Your task to perform on an android device: Go to wifi settings Image 0: 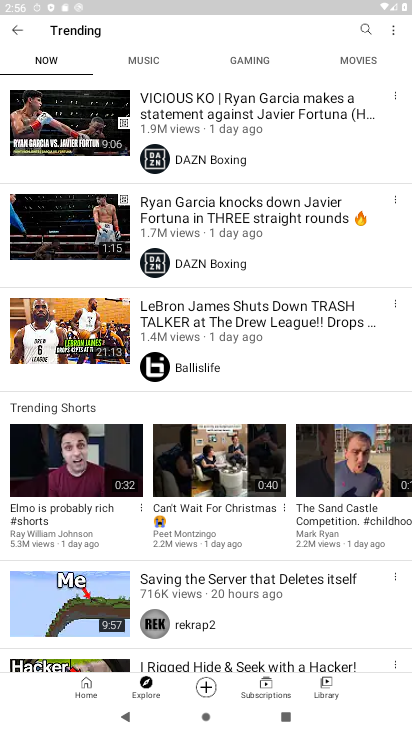
Step 0: press home button
Your task to perform on an android device: Go to wifi settings Image 1: 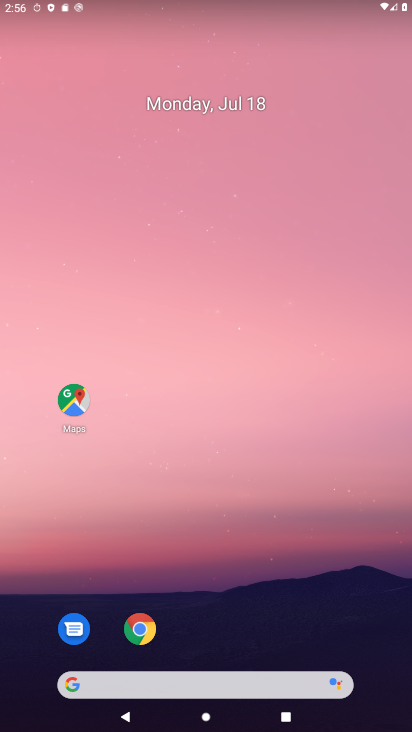
Step 1: drag from (247, 655) to (284, 13)
Your task to perform on an android device: Go to wifi settings Image 2: 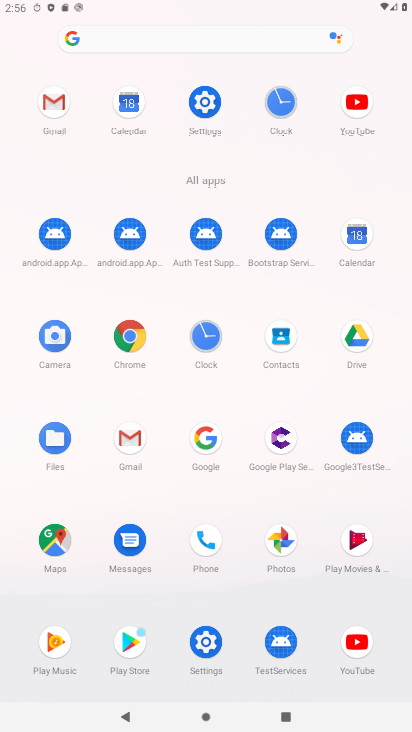
Step 2: click (216, 654)
Your task to perform on an android device: Go to wifi settings Image 3: 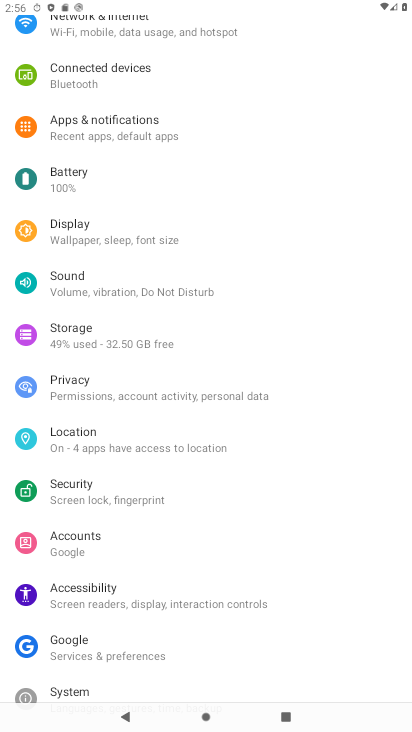
Step 3: drag from (173, 215) to (140, 531)
Your task to perform on an android device: Go to wifi settings Image 4: 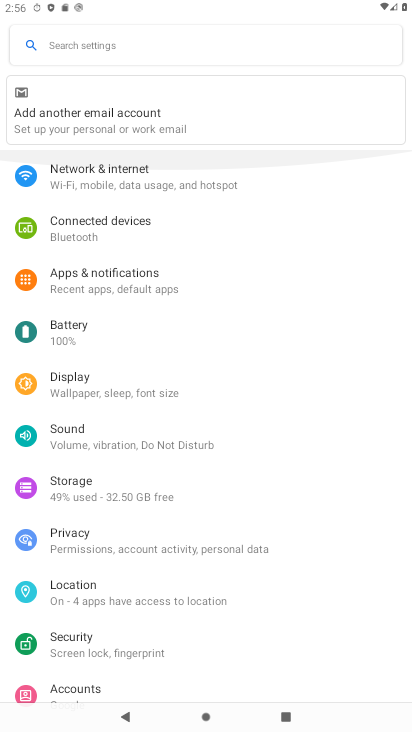
Step 4: drag from (144, 94) to (147, 412)
Your task to perform on an android device: Go to wifi settings Image 5: 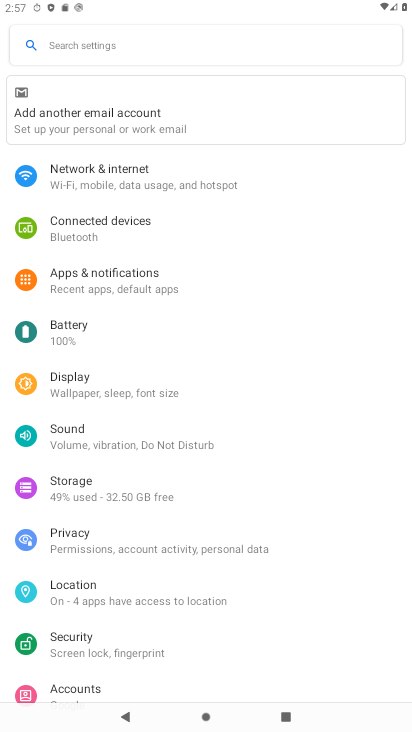
Step 5: click (123, 175)
Your task to perform on an android device: Go to wifi settings Image 6: 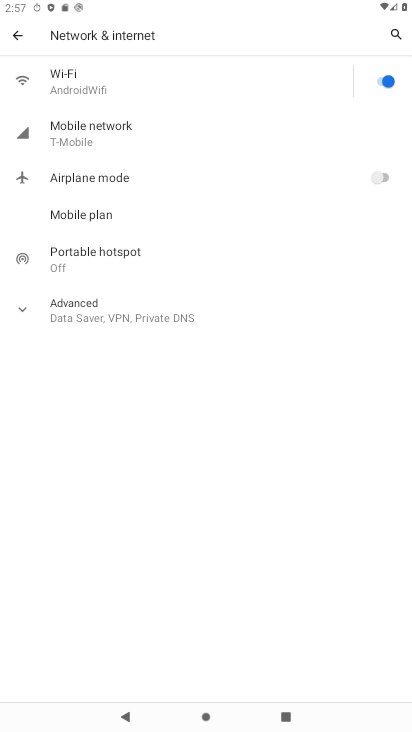
Step 6: click (100, 83)
Your task to perform on an android device: Go to wifi settings Image 7: 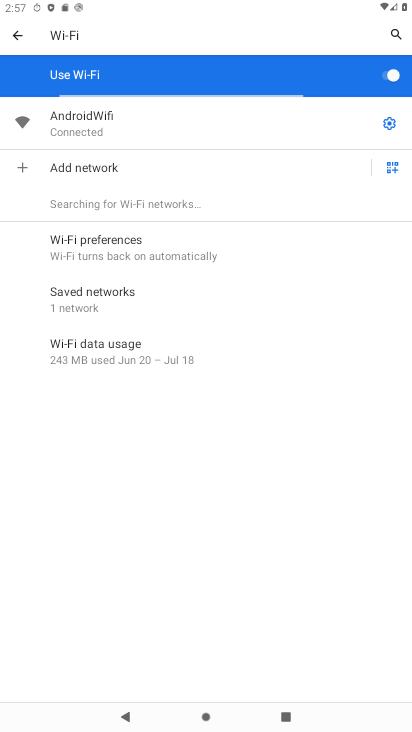
Step 7: task complete